Your task to perform on an android device: Open Chrome and go to settings Image 0: 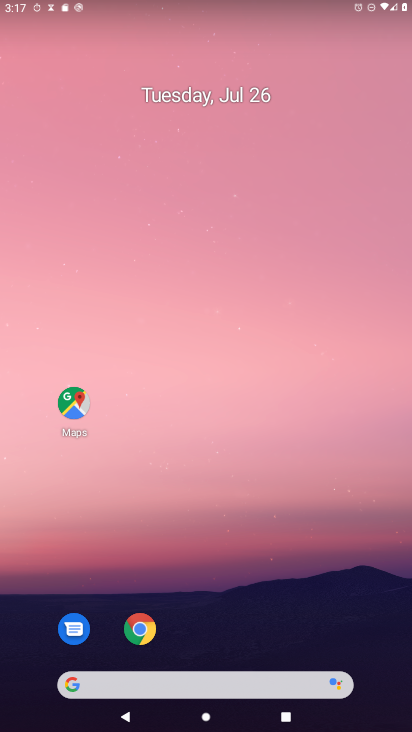
Step 0: drag from (184, 685) to (220, 4)
Your task to perform on an android device: Open Chrome and go to settings Image 1: 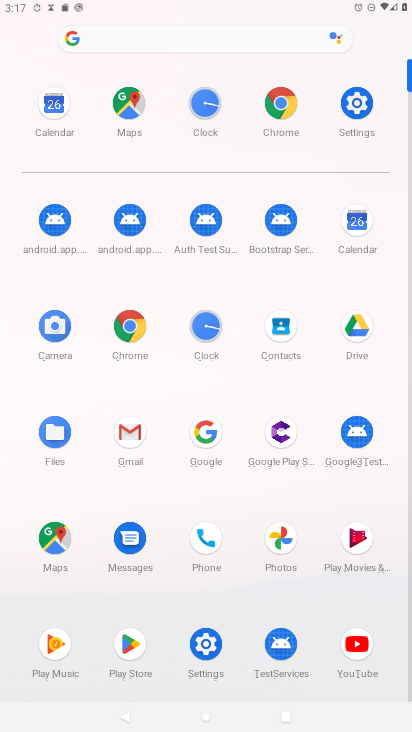
Step 1: click (136, 334)
Your task to perform on an android device: Open Chrome and go to settings Image 2: 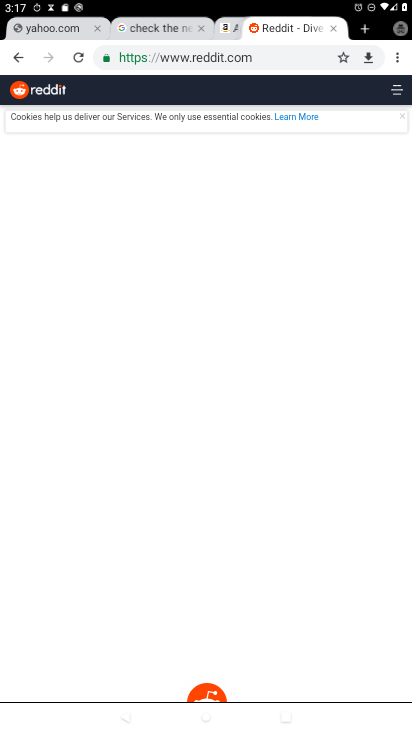
Step 2: task complete